Your task to perform on an android device: turn on javascript in the chrome app Image 0: 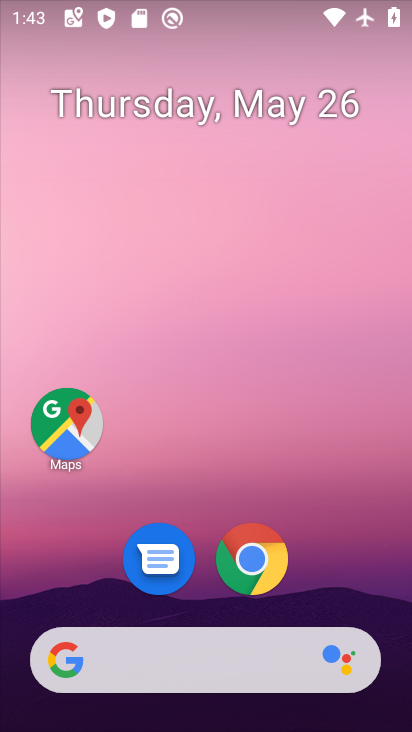
Step 0: press home button
Your task to perform on an android device: turn on javascript in the chrome app Image 1: 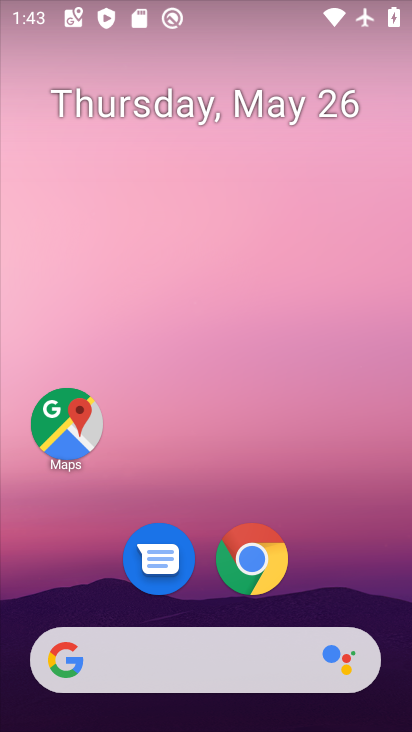
Step 1: click (256, 576)
Your task to perform on an android device: turn on javascript in the chrome app Image 2: 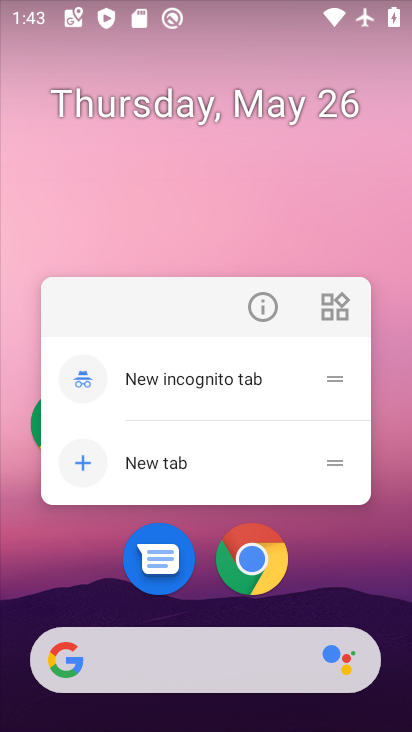
Step 2: click (257, 576)
Your task to perform on an android device: turn on javascript in the chrome app Image 3: 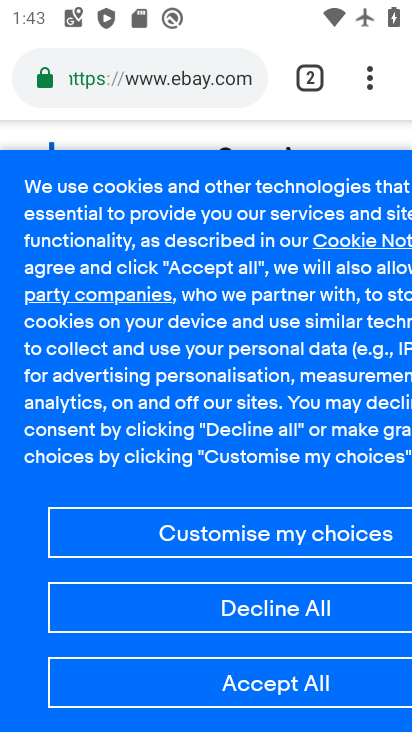
Step 3: drag from (369, 82) to (198, 606)
Your task to perform on an android device: turn on javascript in the chrome app Image 4: 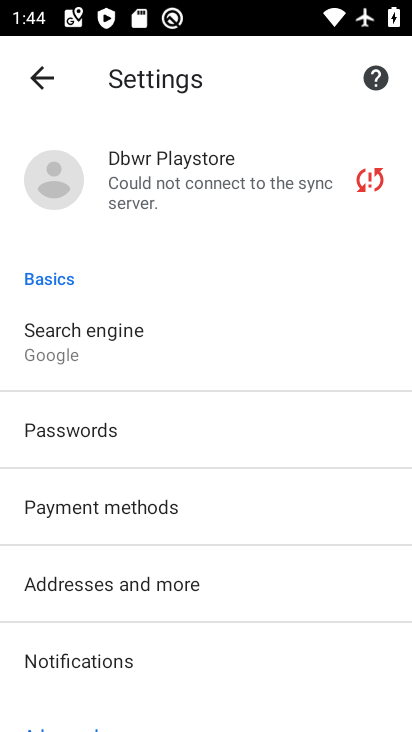
Step 4: drag from (197, 656) to (266, 267)
Your task to perform on an android device: turn on javascript in the chrome app Image 5: 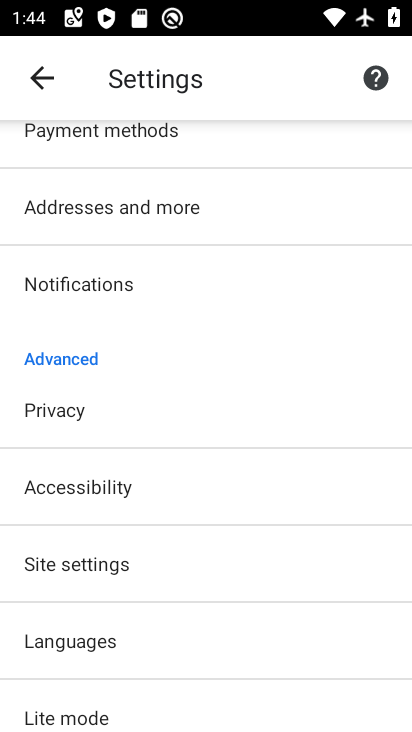
Step 5: drag from (241, 634) to (242, 470)
Your task to perform on an android device: turn on javascript in the chrome app Image 6: 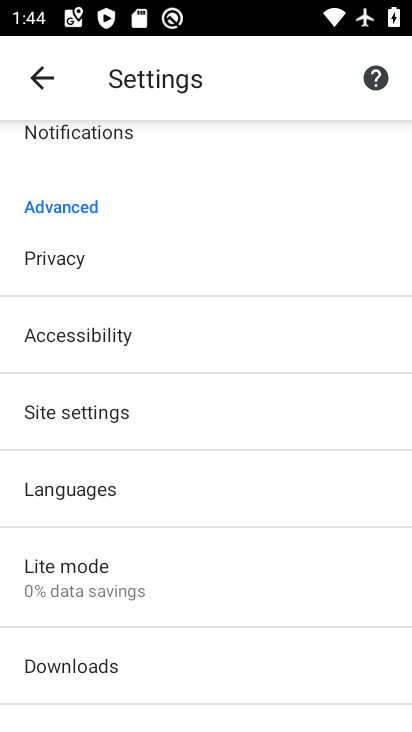
Step 6: click (127, 419)
Your task to perform on an android device: turn on javascript in the chrome app Image 7: 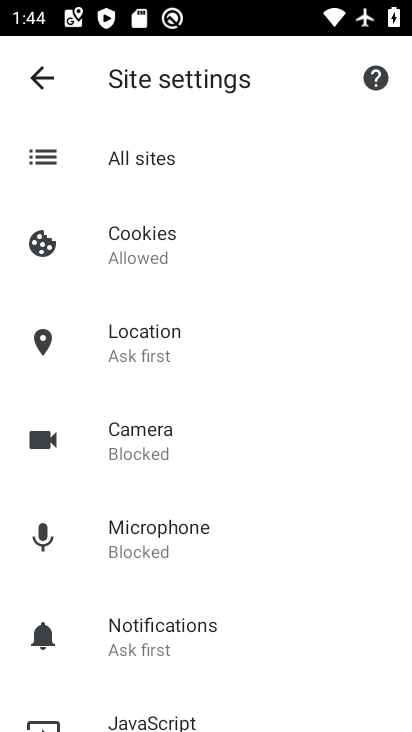
Step 7: drag from (259, 595) to (311, 252)
Your task to perform on an android device: turn on javascript in the chrome app Image 8: 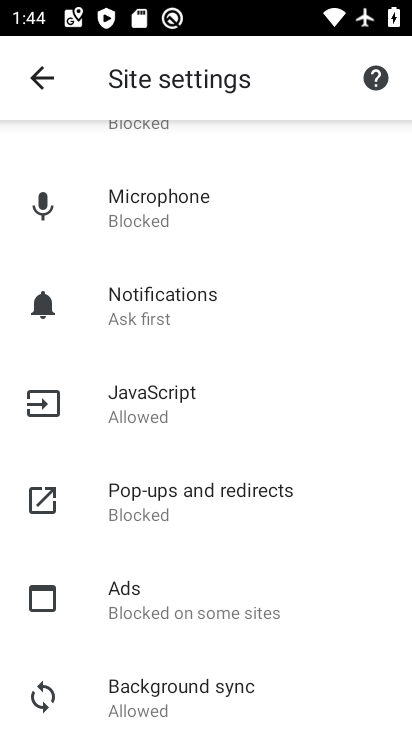
Step 8: click (155, 422)
Your task to perform on an android device: turn on javascript in the chrome app Image 9: 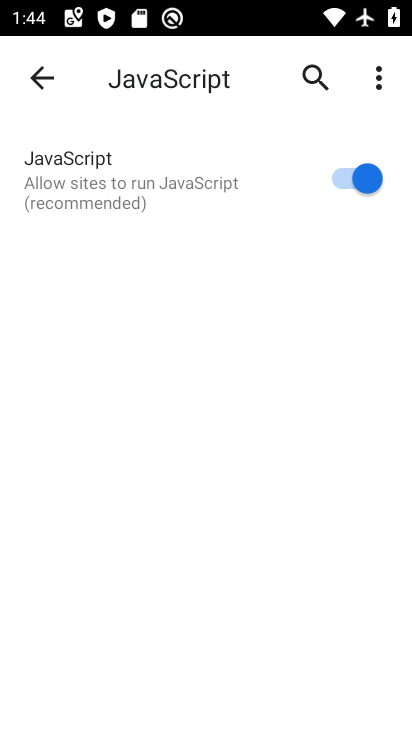
Step 9: task complete